Your task to perform on an android device: delete the emails in spam in the gmail app Image 0: 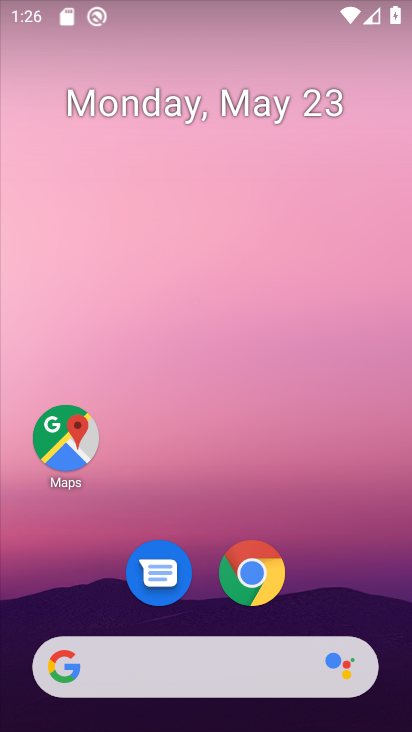
Step 0: drag from (297, 518) to (295, 23)
Your task to perform on an android device: delete the emails in spam in the gmail app Image 1: 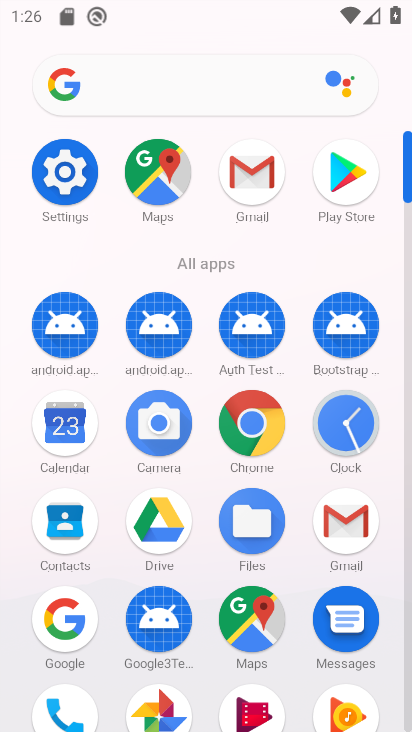
Step 1: click (251, 190)
Your task to perform on an android device: delete the emails in spam in the gmail app Image 2: 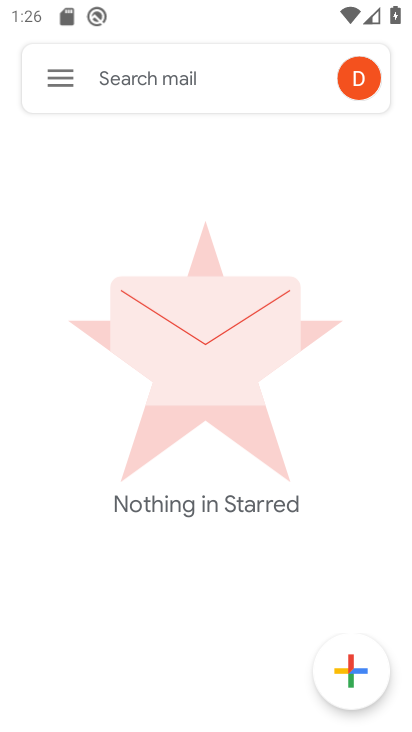
Step 2: click (62, 78)
Your task to perform on an android device: delete the emails in spam in the gmail app Image 3: 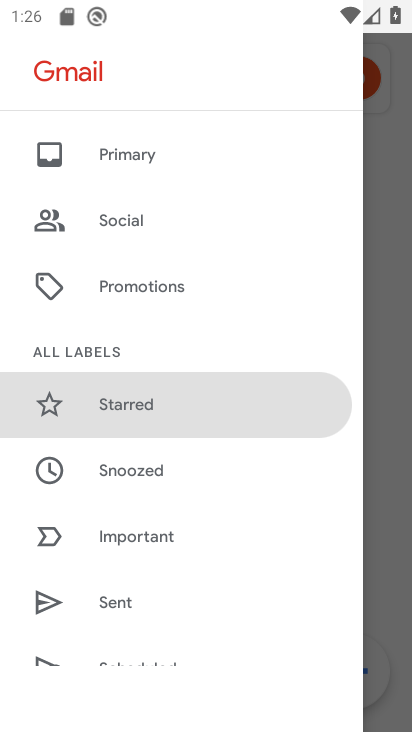
Step 3: drag from (238, 553) to (223, 15)
Your task to perform on an android device: delete the emails in spam in the gmail app Image 4: 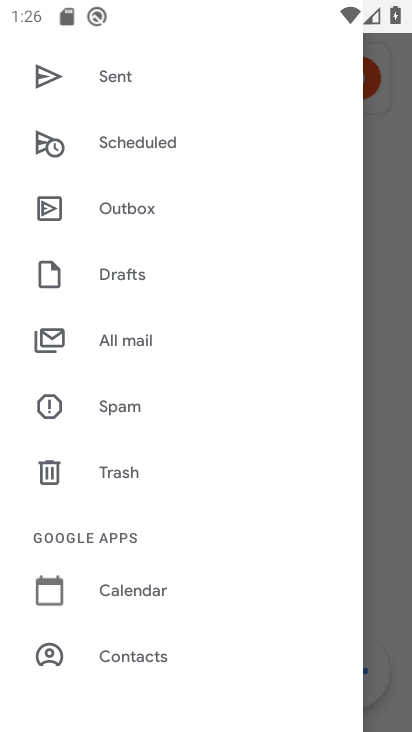
Step 4: click (125, 417)
Your task to perform on an android device: delete the emails in spam in the gmail app Image 5: 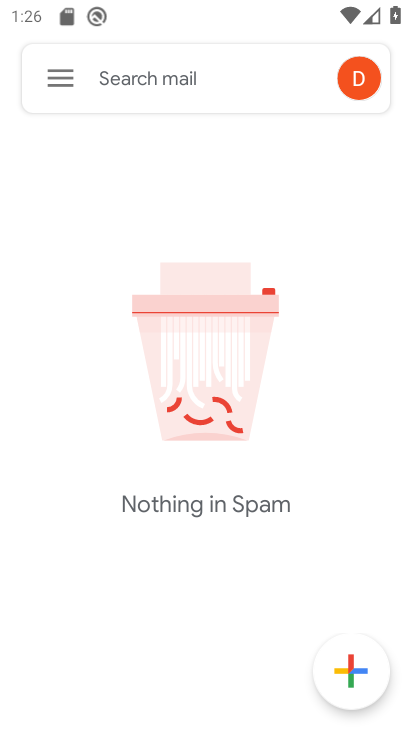
Step 5: task complete